Your task to perform on an android device: install app "Microsoft Authenticator" Image 0: 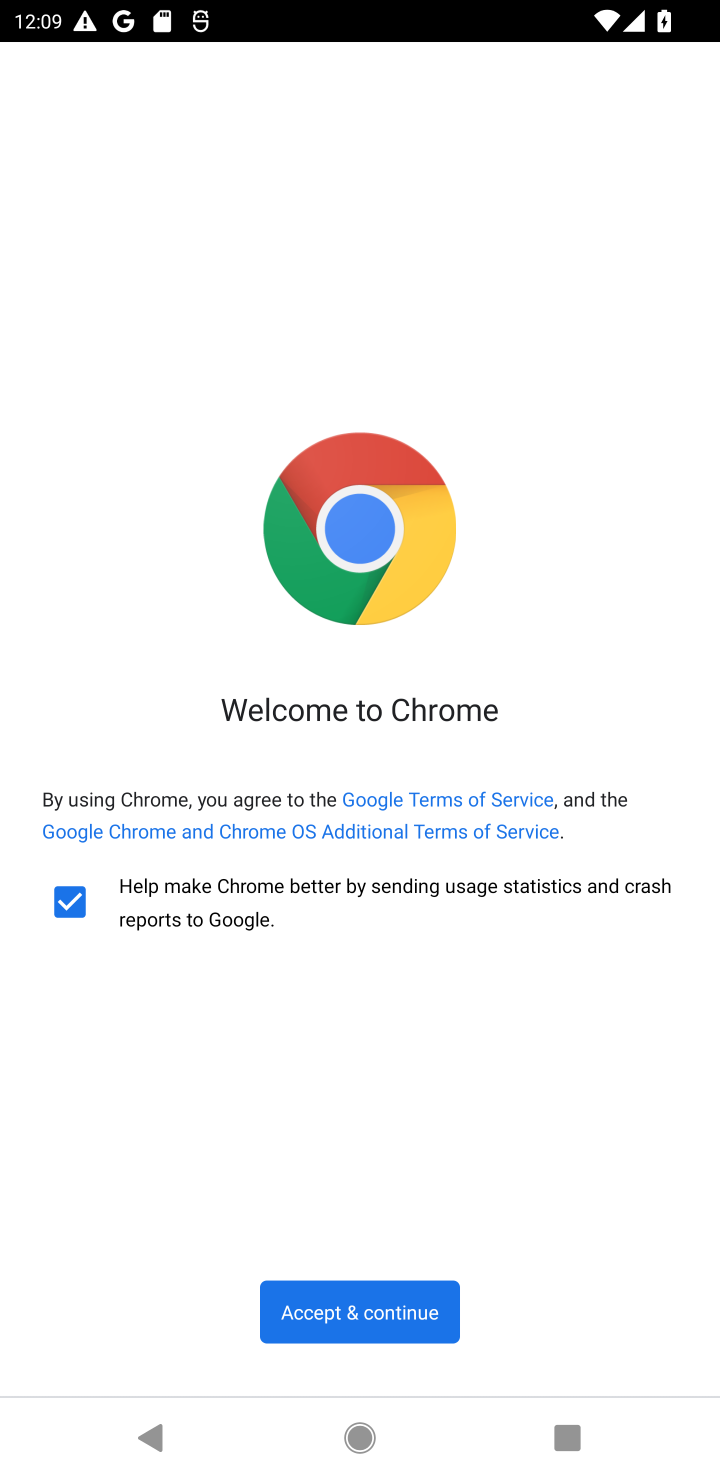
Step 0: press back button
Your task to perform on an android device: install app "Microsoft Authenticator" Image 1: 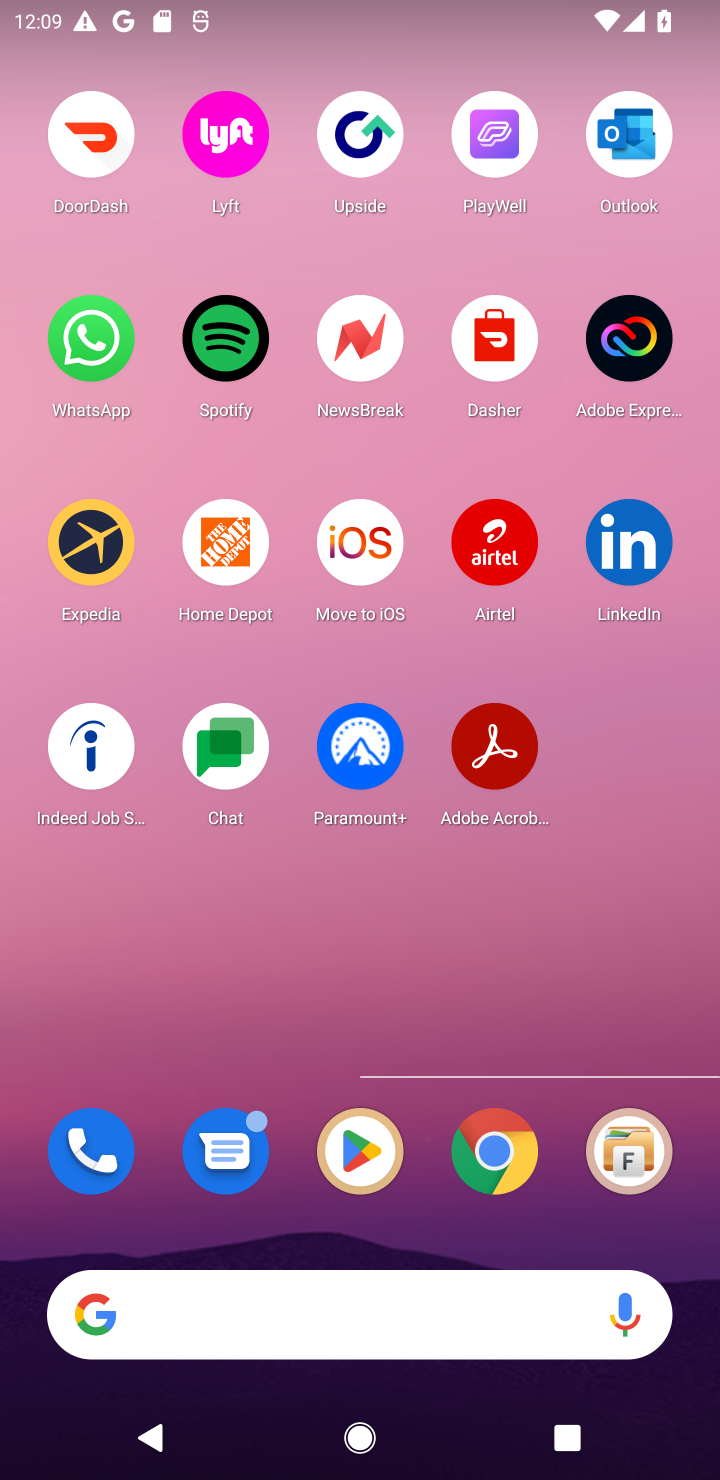
Step 1: press back button
Your task to perform on an android device: install app "Microsoft Authenticator" Image 2: 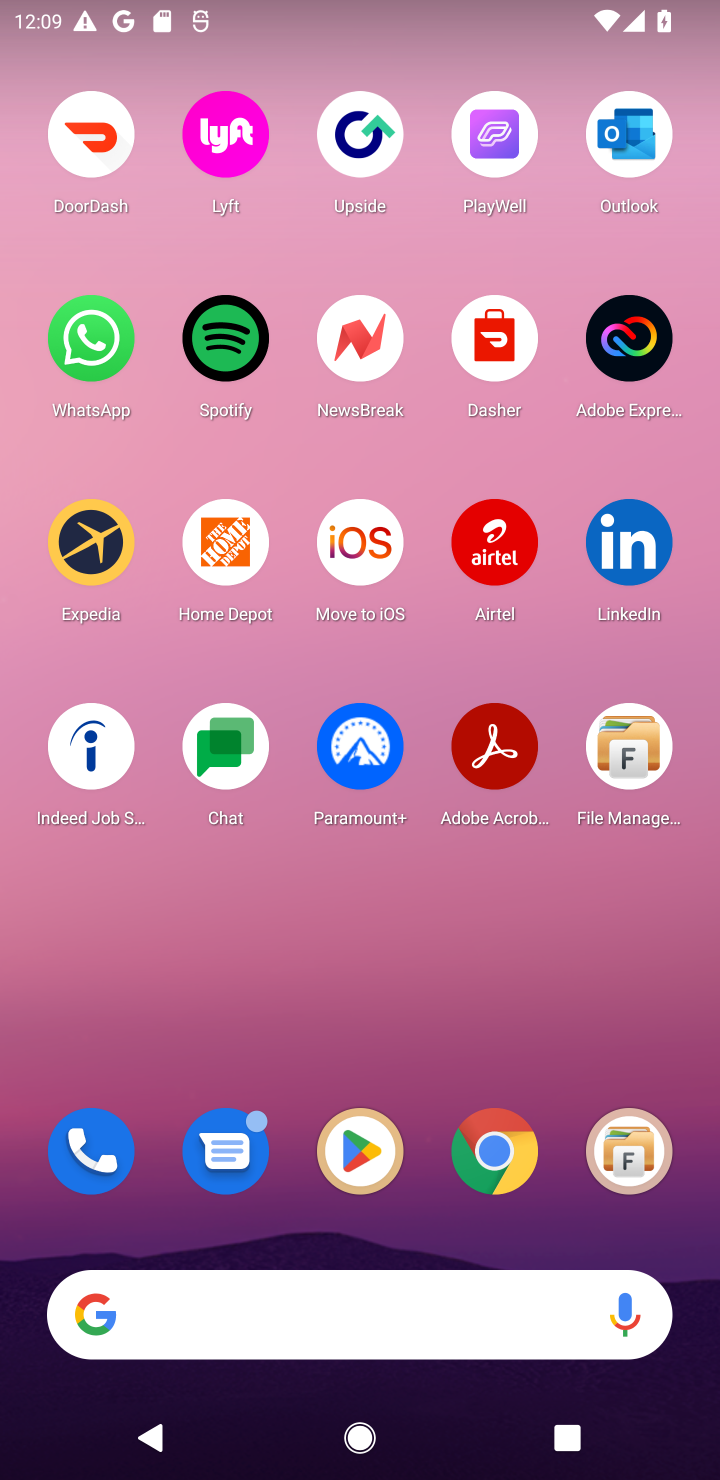
Step 2: click (349, 1126)
Your task to perform on an android device: install app "Microsoft Authenticator" Image 3: 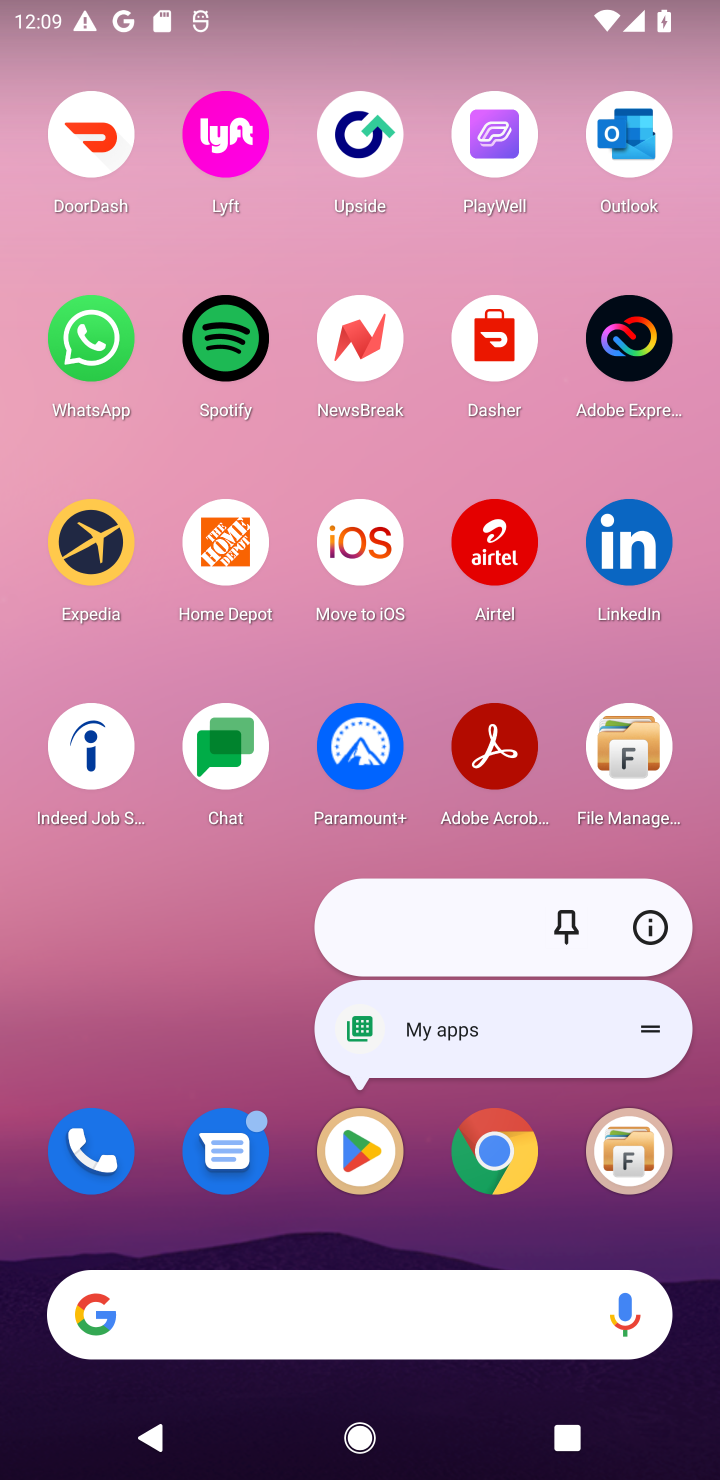
Step 3: click (380, 1163)
Your task to perform on an android device: install app "Microsoft Authenticator" Image 4: 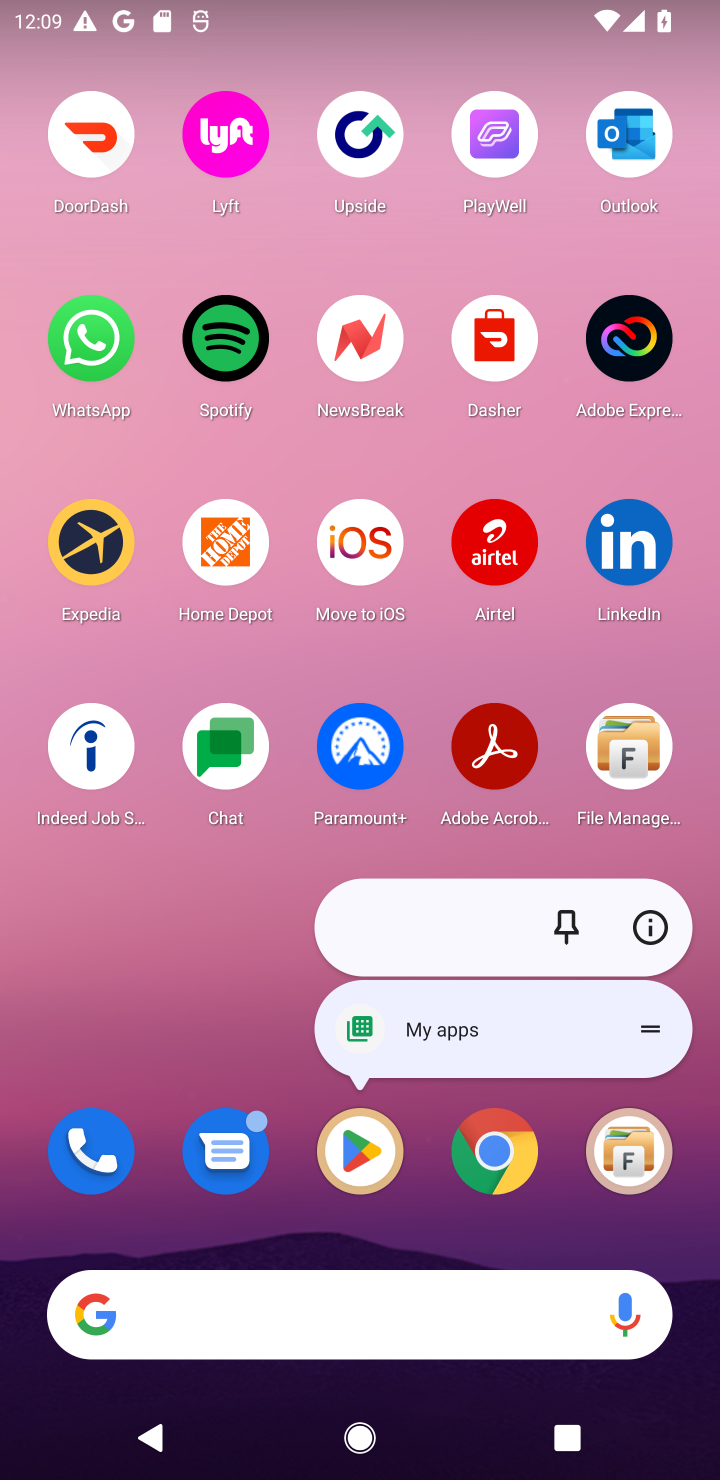
Step 4: click (380, 1163)
Your task to perform on an android device: install app "Microsoft Authenticator" Image 5: 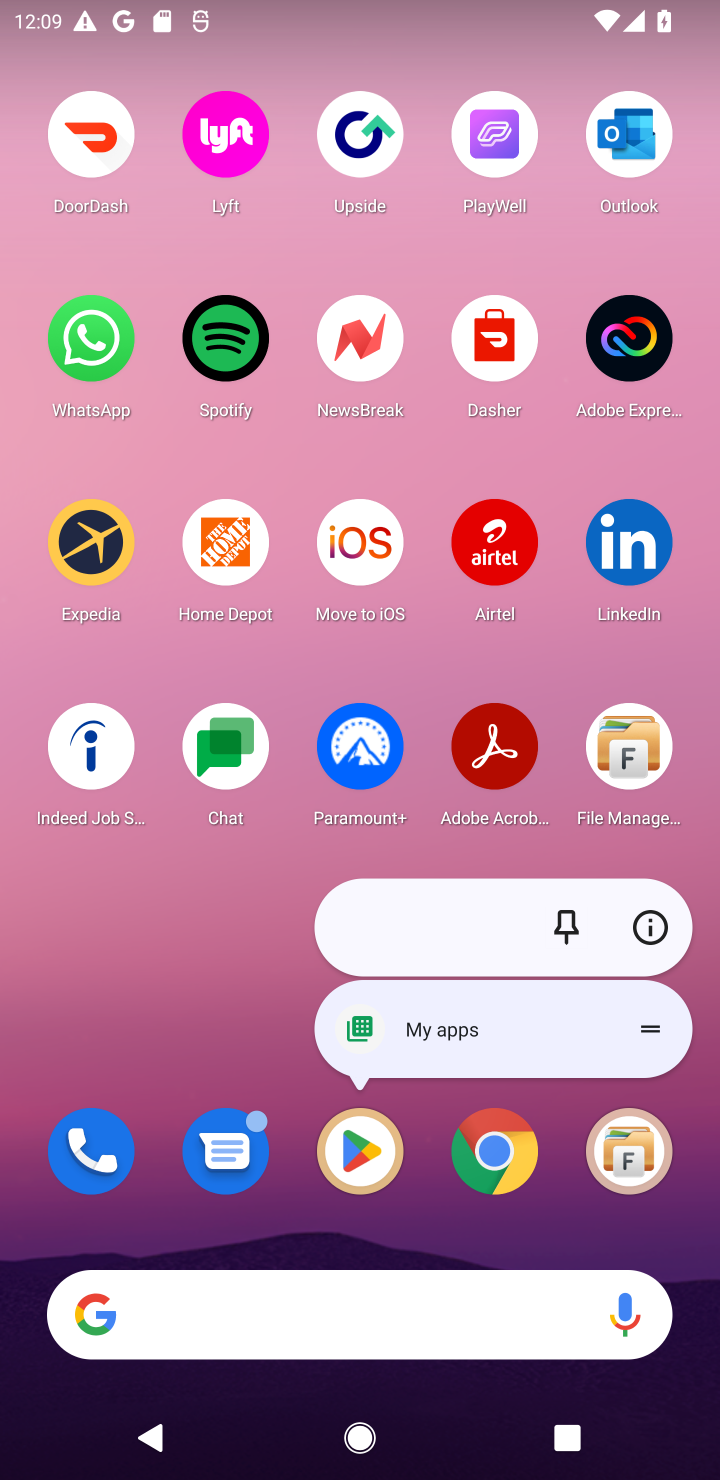
Step 5: click (380, 1163)
Your task to perform on an android device: install app "Microsoft Authenticator" Image 6: 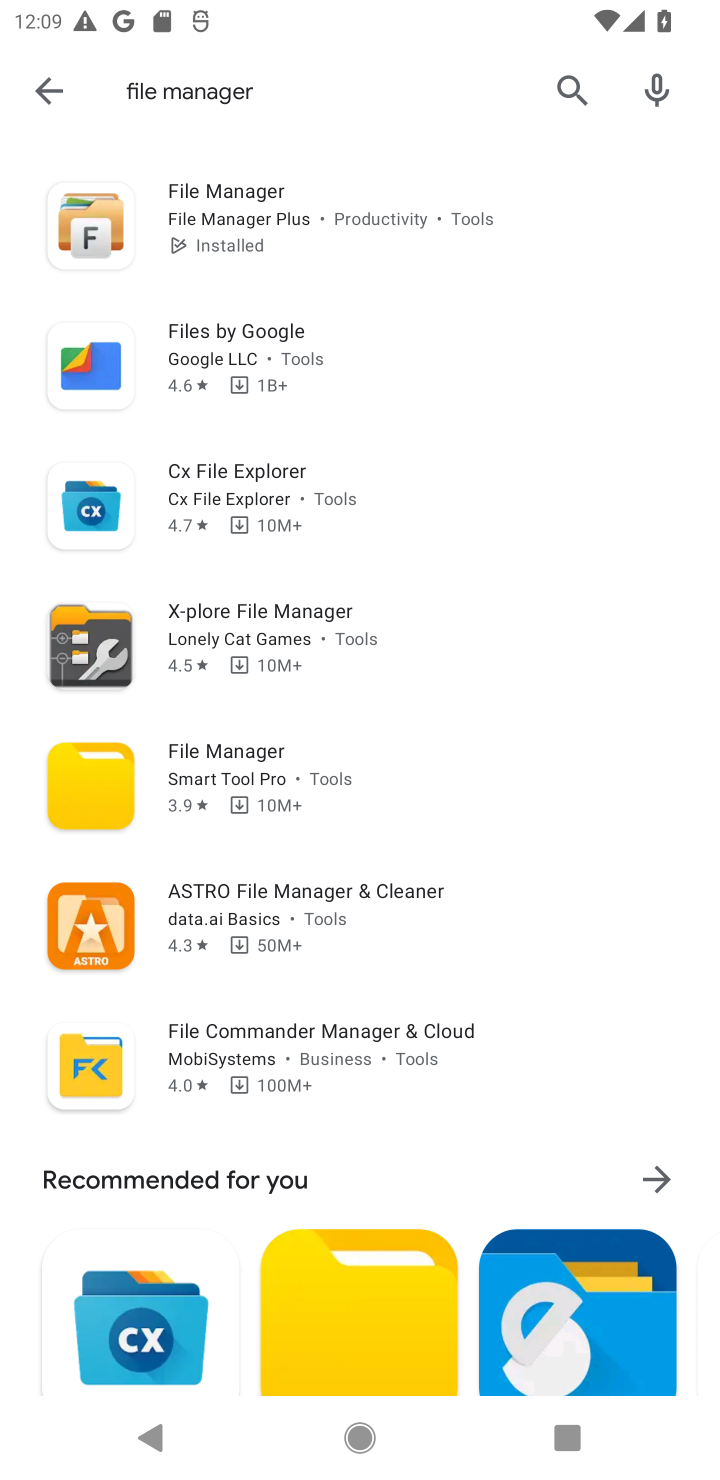
Step 6: click (576, 82)
Your task to perform on an android device: install app "Microsoft Authenticator" Image 7: 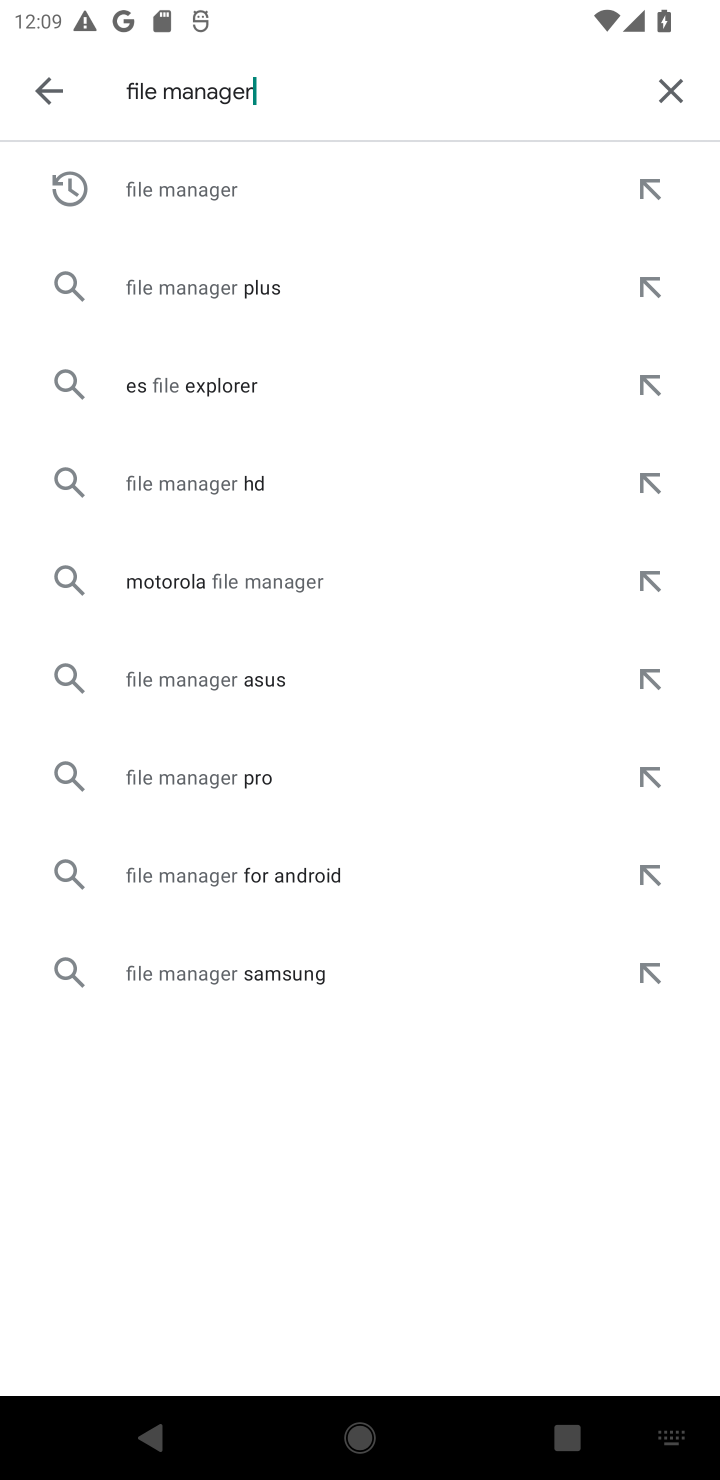
Step 7: click (663, 95)
Your task to perform on an android device: install app "Microsoft Authenticator" Image 8: 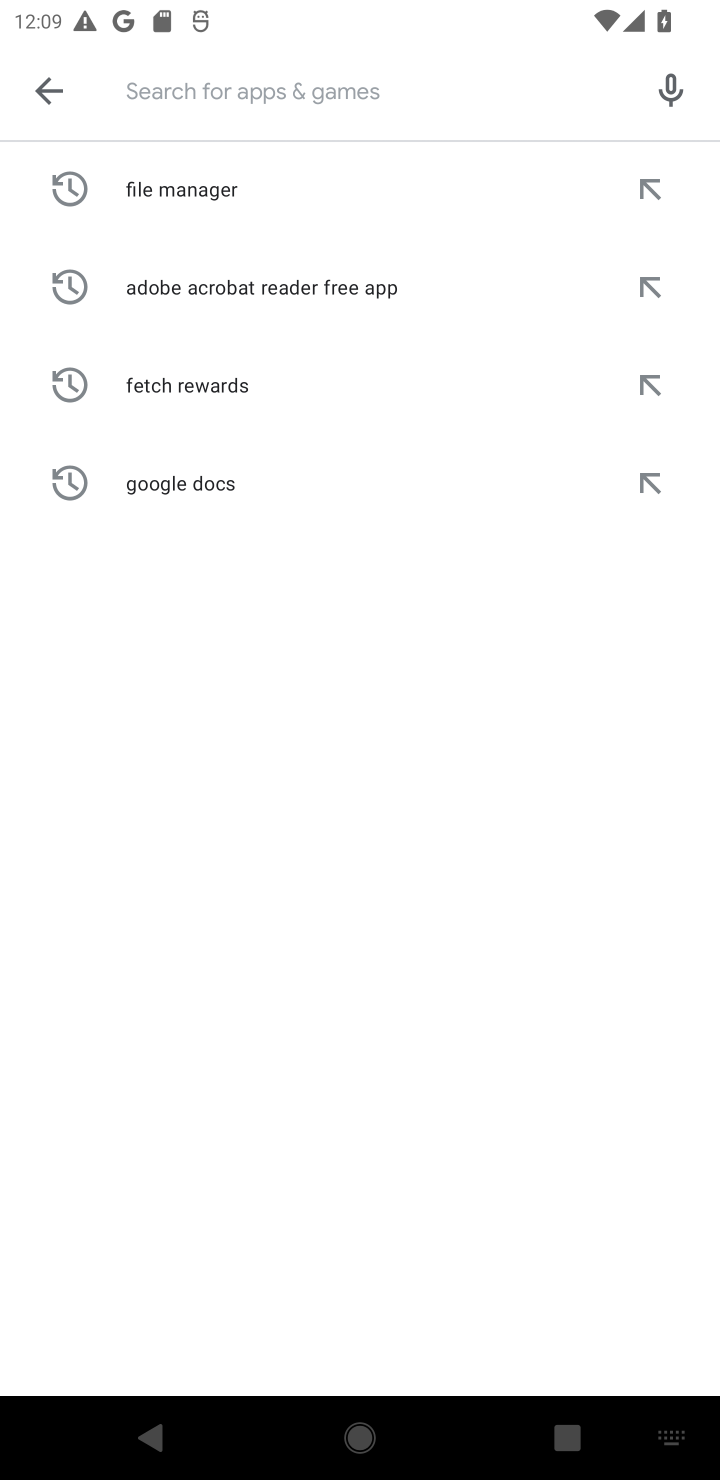
Step 8: type "Microsoft Authenticator"
Your task to perform on an android device: install app "Microsoft Authenticator" Image 9: 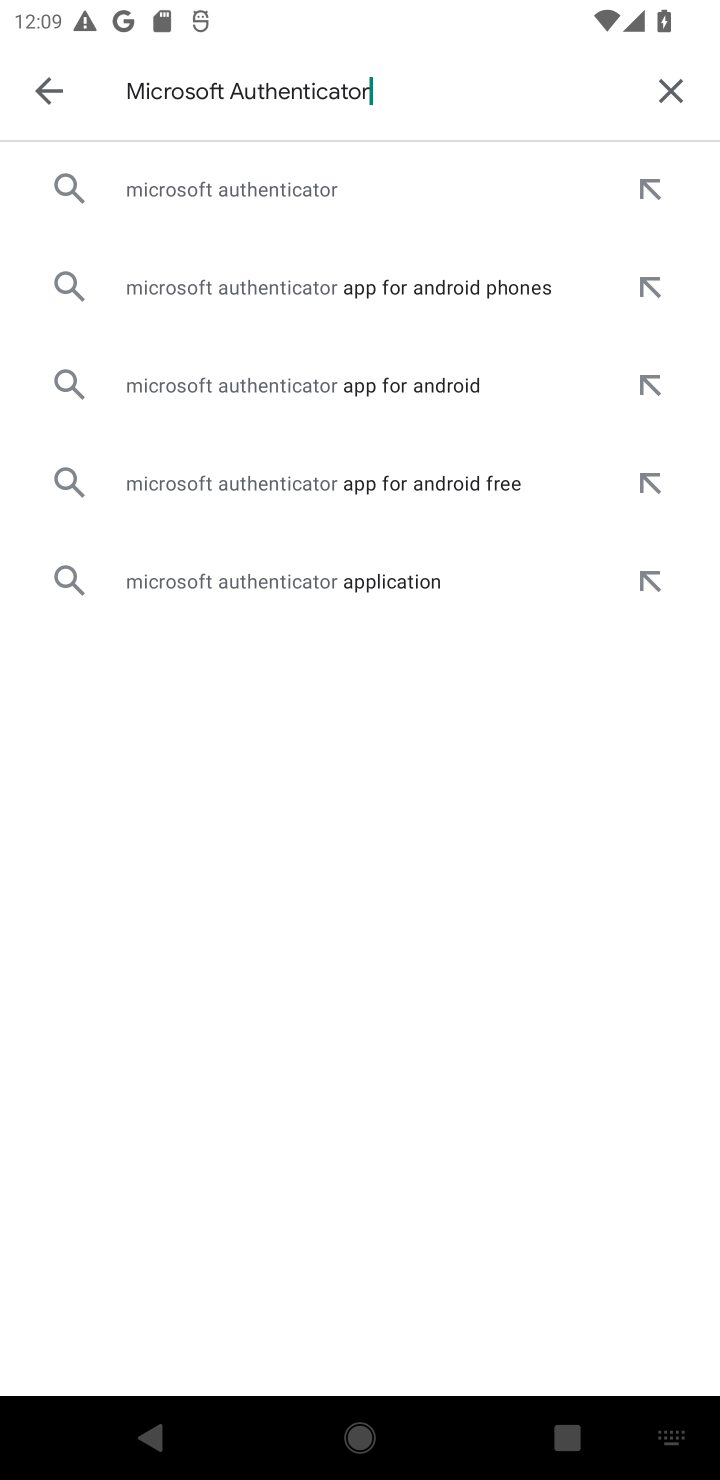
Step 9: click (322, 191)
Your task to perform on an android device: install app "Microsoft Authenticator" Image 10: 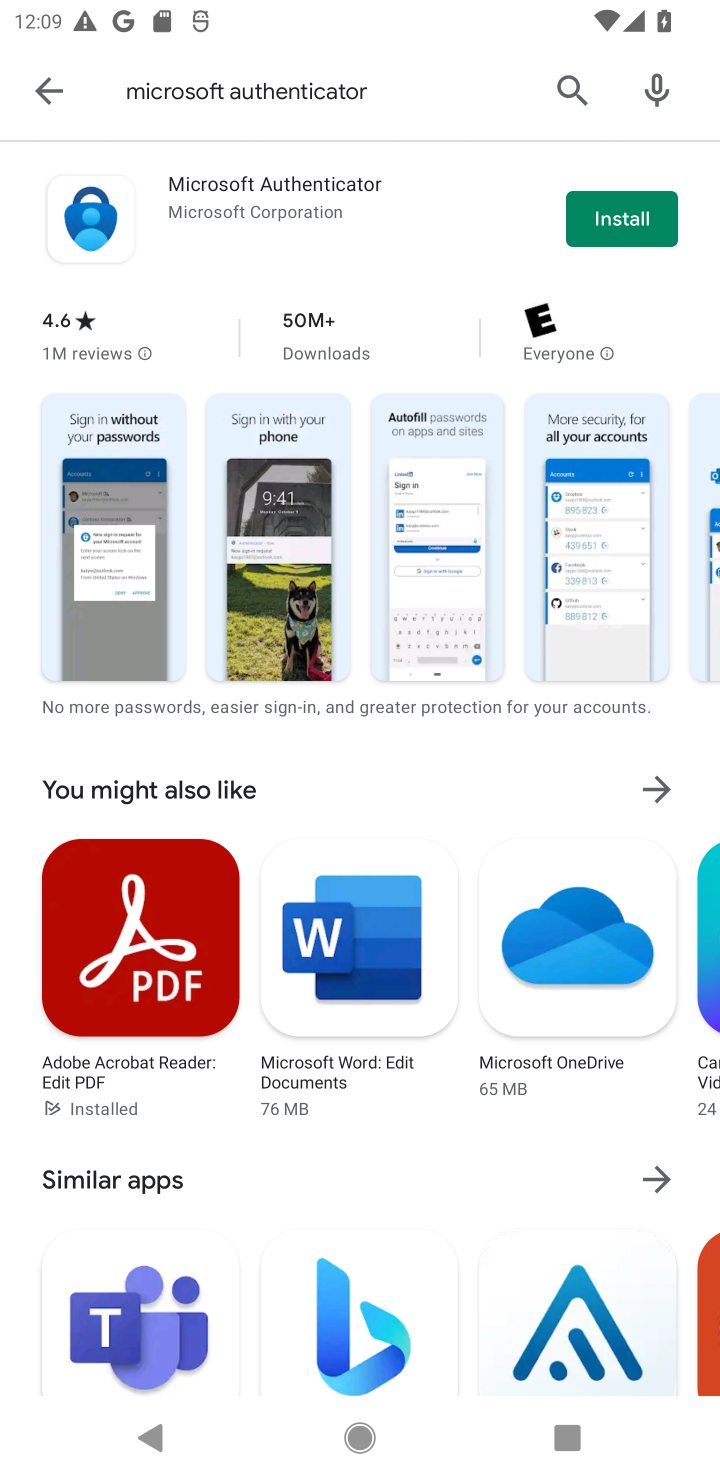
Step 10: click (618, 228)
Your task to perform on an android device: install app "Microsoft Authenticator" Image 11: 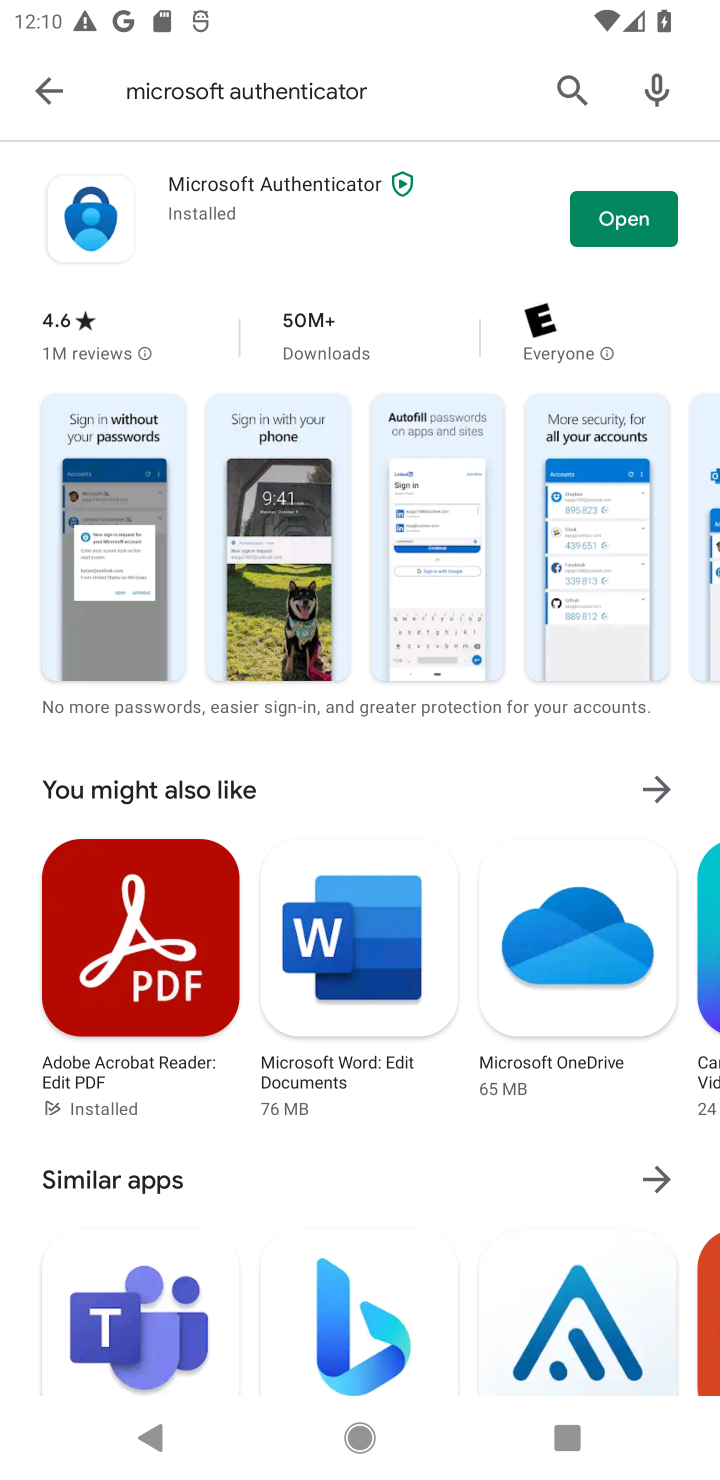
Step 11: task complete